Your task to perform on an android device: find which apps use the phone's location Image 0: 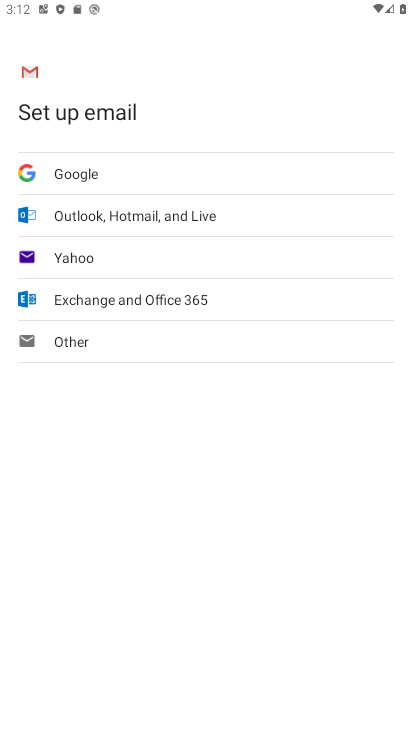
Step 0: press home button
Your task to perform on an android device: find which apps use the phone's location Image 1: 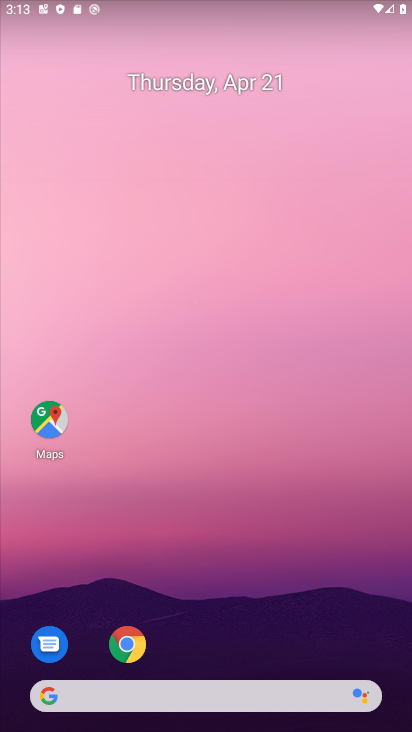
Step 1: drag from (319, 419) to (306, 75)
Your task to perform on an android device: find which apps use the phone's location Image 2: 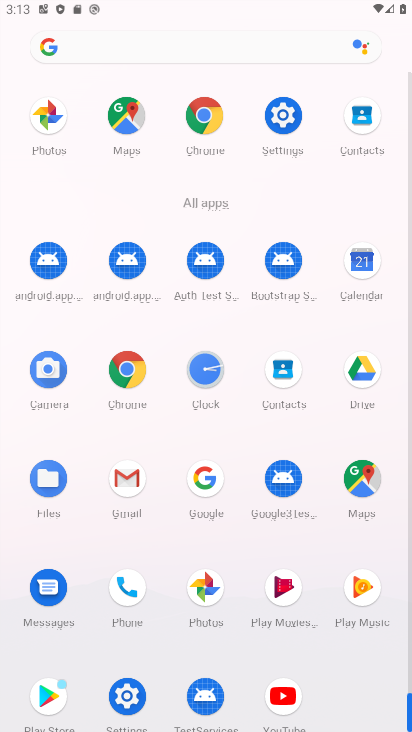
Step 2: click (301, 114)
Your task to perform on an android device: find which apps use the phone's location Image 3: 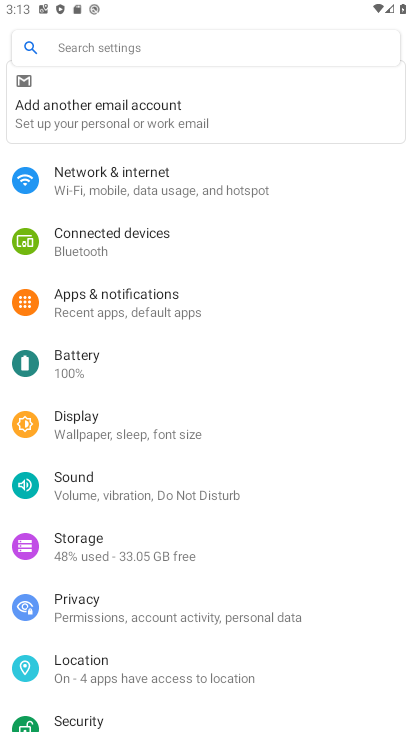
Step 3: click (116, 547)
Your task to perform on an android device: find which apps use the phone's location Image 4: 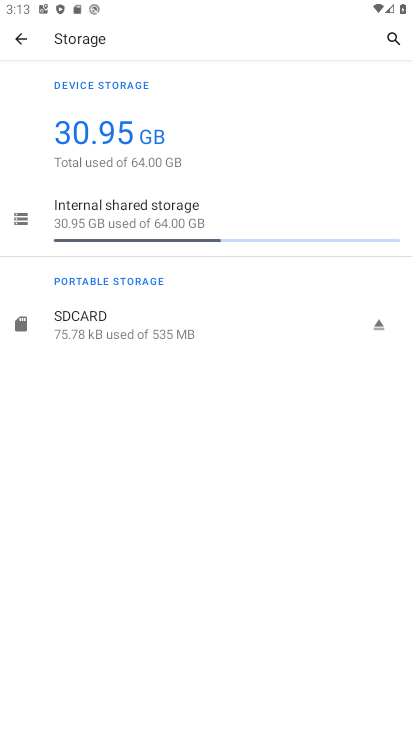
Step 4: click (131, 216)
Your task to perform on an android device: find which apps use the phone's location Image 5: 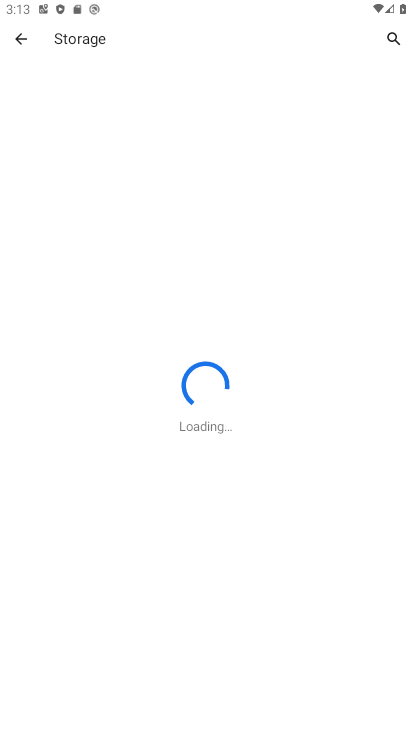
Step 5: click (131, 216)
Your task to perform on an android device: find which apps use the phone's location Image 6: 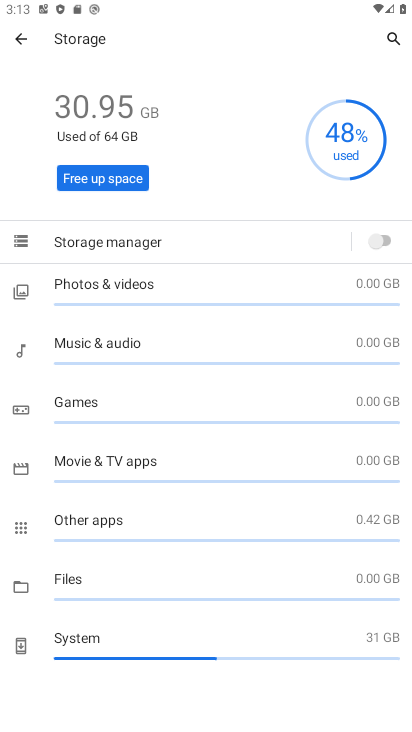
Step 6: task complete